Your task to perform on an android device: Go to Amazon Image 0: 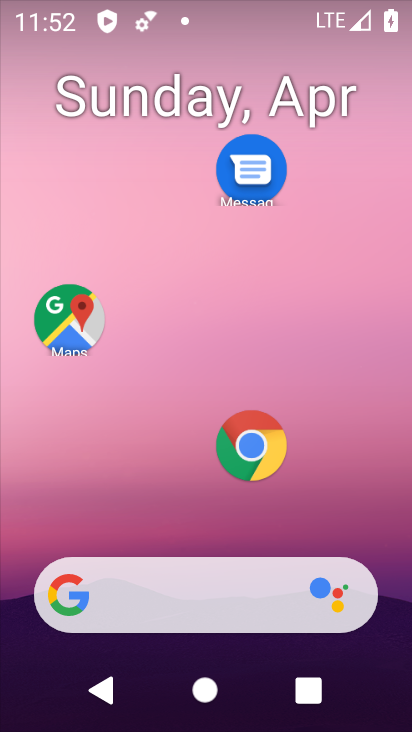
Step 0: press home button
Your task to perform on an android device: Go to Amazon Image 1: 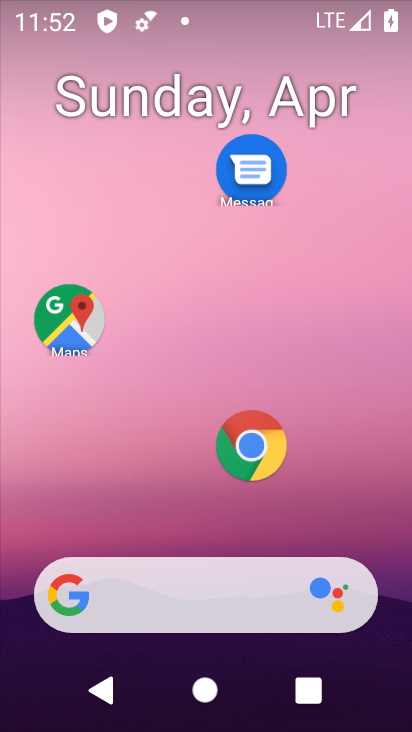
Step 1: drag from (148, 587) to (305, 94)
Your task to perform on an android device: Go to Amazon Image 2: 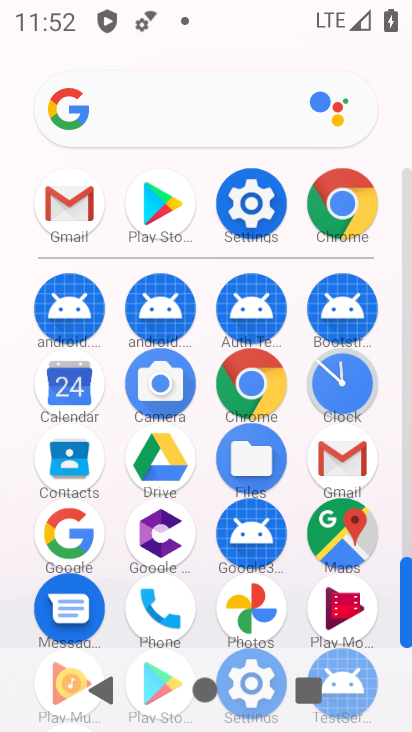
Step 2: click (346, 204)
Your task to perform on an android device: Go to Amazon Image 3: 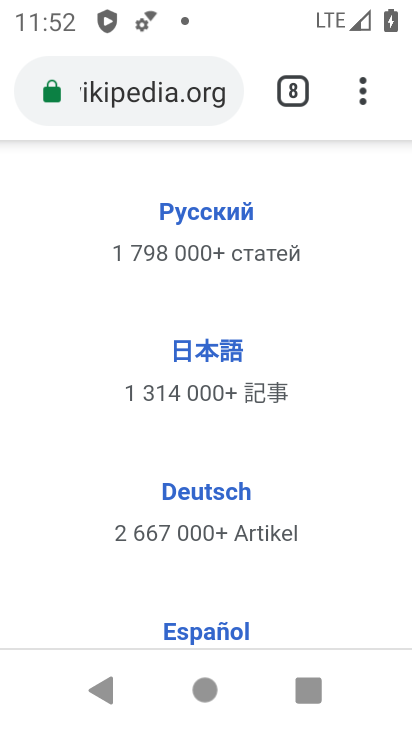
Step 3: drag from (362, 97) to (141, 299)
Your task to perform on an android device: Go to Amazon Image 4: 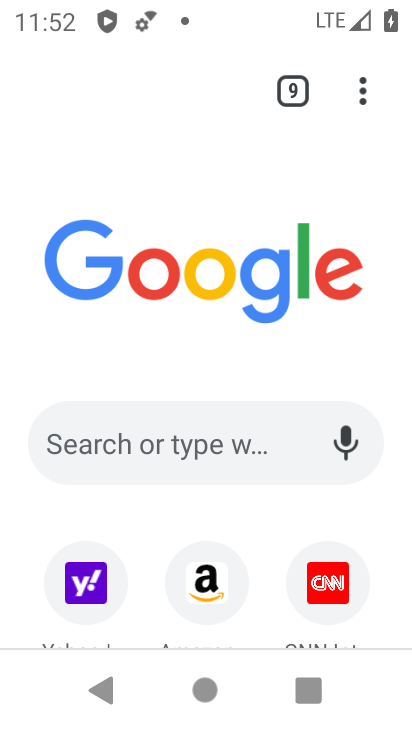
Step 4: drag from (136, 505) to (265, 206)
Your task to perform on an android device: Go to Amazon Image 5: 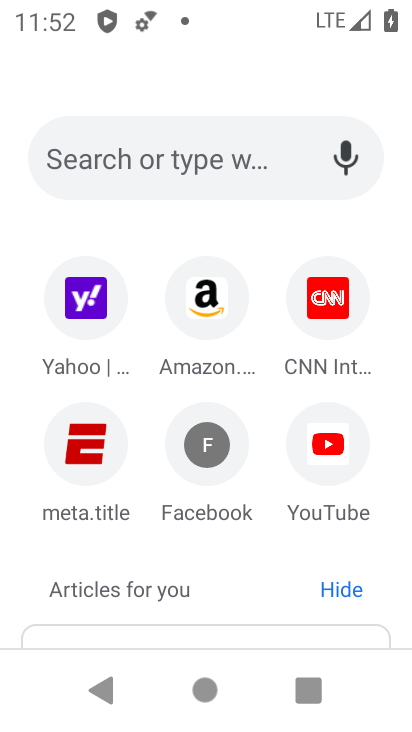
Step 5: click (207, 329)
Your task to perform on an android device: Go to Amazon Image 6: 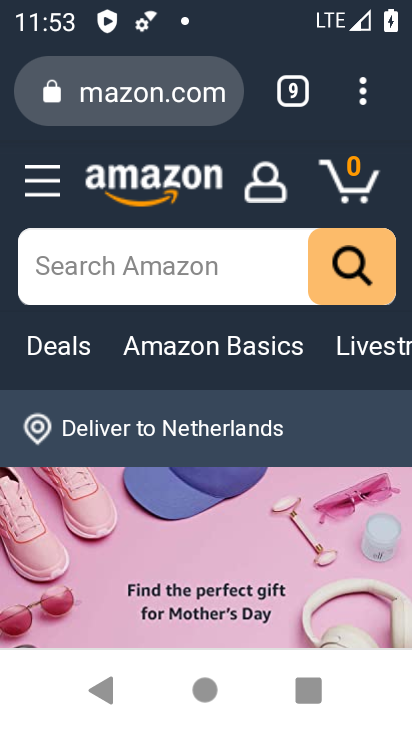
Step 6: task complete